Your task to perform on an android device: open the mobile data screen to see how much data has been used Image 0: 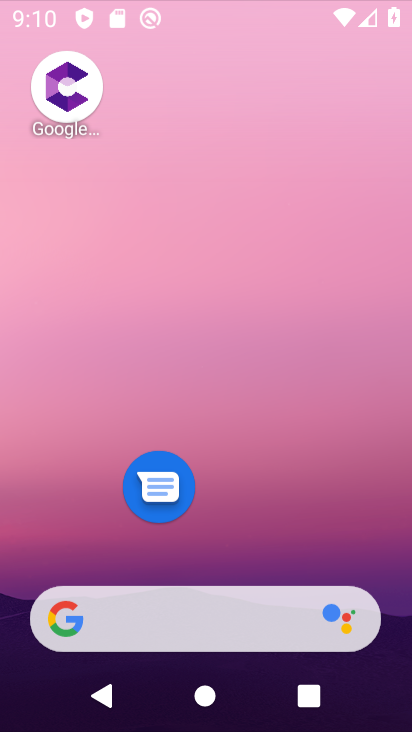
Step 0: drag from (219, 504) to (265, 325)
Your task to perform on an android device: open the mobile data screen to see how much data has been used Image 1: 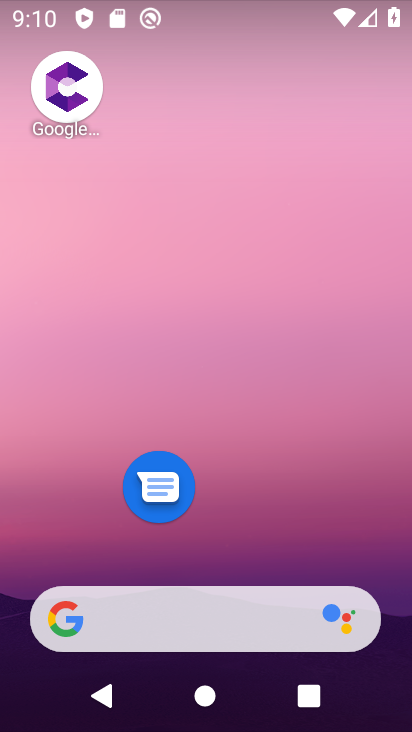
Step 1: drag from (230, 496) to (272, 112)
Your task to perform on an android device: open the mobile data screen to see how much data has been used Image 2: 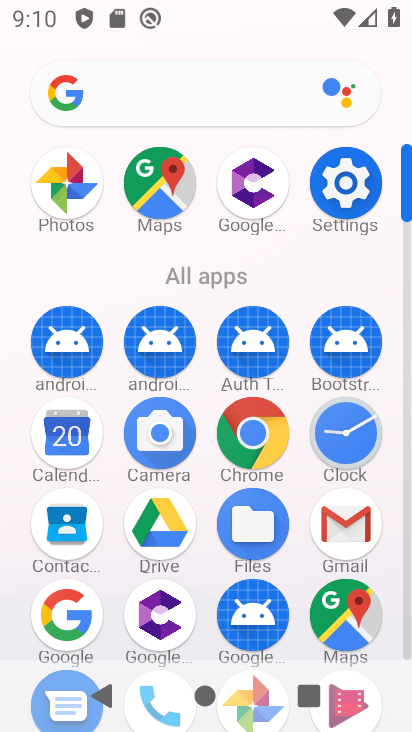
Step 2: click (360, 196)
Your task to perform on an android device: open the mobile data screen to see how much data has been used Image 3: 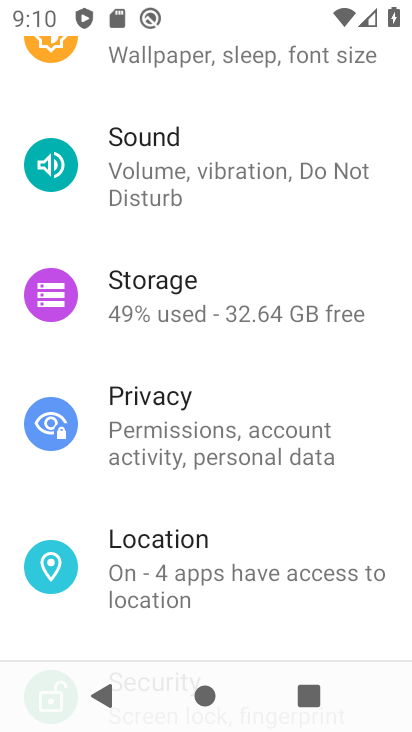
Step 3: drag from (263, 253) to (284, 465)
Your task to perform on an android device: open the mobile data screen to see how much data has been used Image 4: 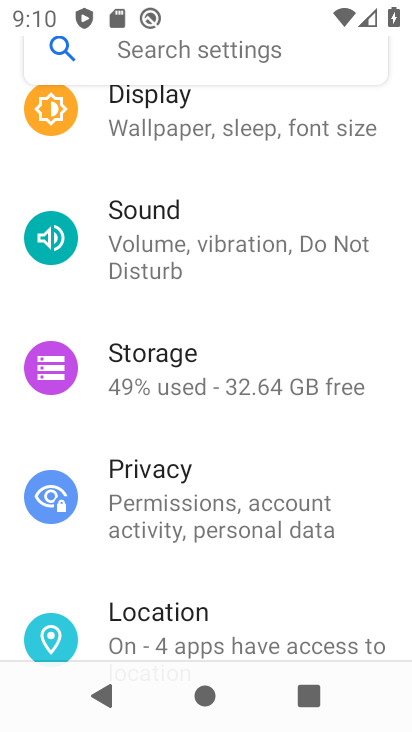
Step 4: drag from (246, 269) to (241, 591)
Your task to perform on an android device: open the mobile data screen to see how much data has been used Image 5: 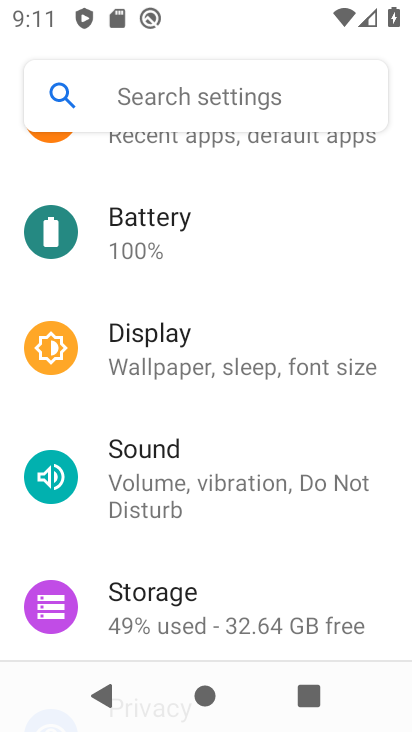
Step 5: drag from (212, 288) to (199, 724)
Your task to perform on an android device: open the mobile data screen to see how much data has been used Image 6: 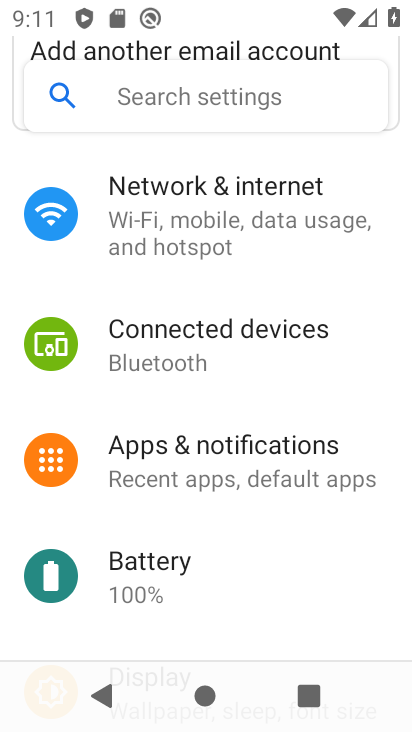
Step 6: click (262, 228)
Your task to perform on an android device: open the mobile data screen to see how much data has been used Image 7: 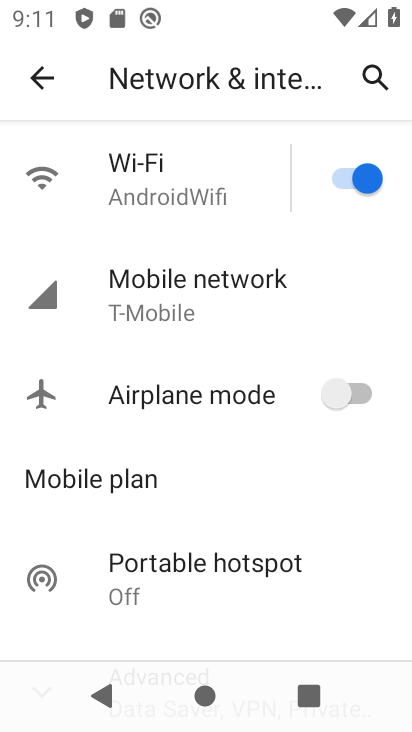
Step 7: click (242, 308)
Your task to perform on an android device: open the mobile data screen to see how much data has been used Image 8: 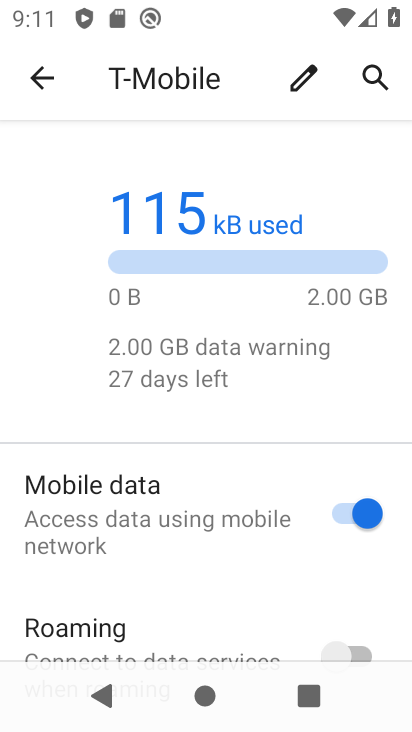
Step 8: drag from (201, 466) to (279, 76)
Your task to perform on an android device: open the mobile data screen to see how much data has been used Image 9: 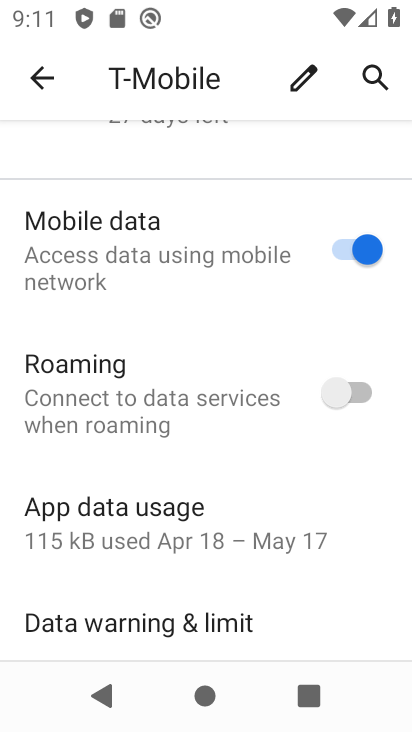
Step 9: drag from (182, 412) to (224, 285)
Your task to perform on an android device: open the mobile data screen to see how much data has been used Image 10: 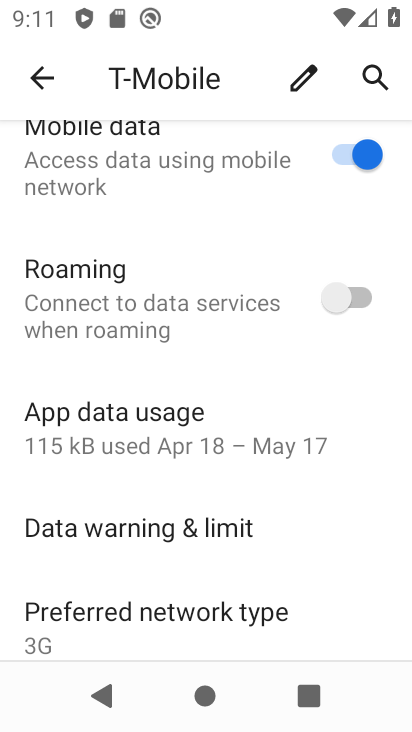
Step 10: click (188, 408)
Your task to perform on an android device: open the mobile data screen to see how much data has been used Image 11: 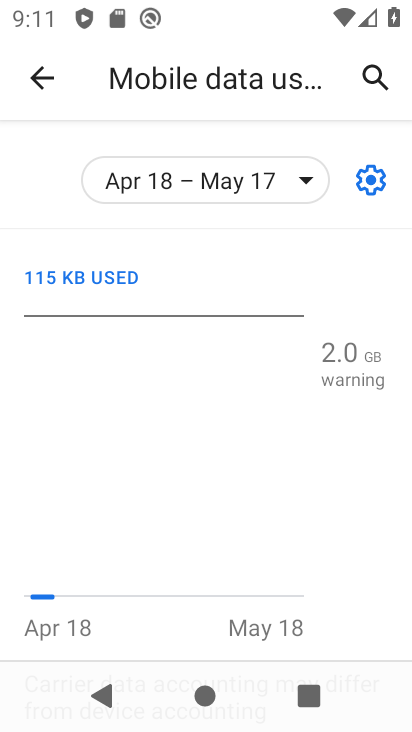
Step 11: task complete